Your task to perform on an android device: When is my next meeting? Image 0: 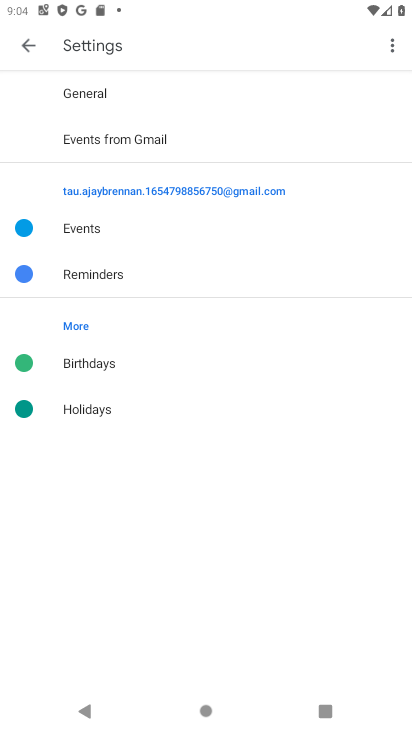
Step 0: press home button
Your task to perform on an android device: When is my next meeting? Image 1: 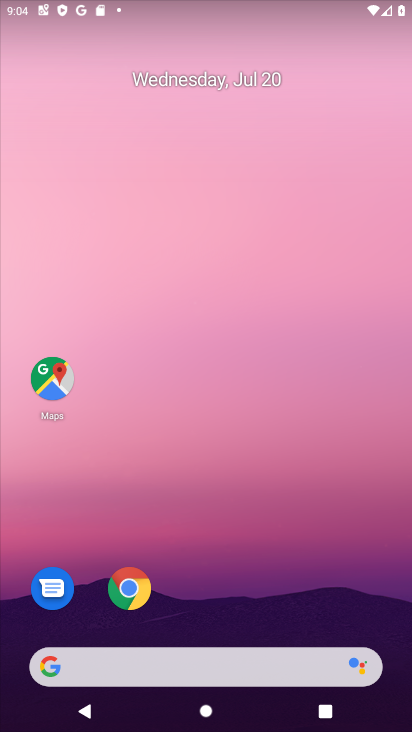
Step 1: drag from (238, 683) to (179, 99)
Your task to perform on an android device: When is my next meeting? Image 2: 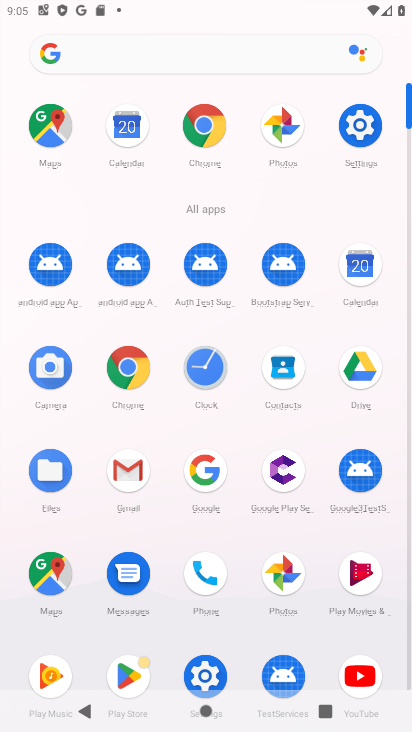
Step 2: click (359, 272)
Your task to perform on an android device: When is my next meeting? Image 3: 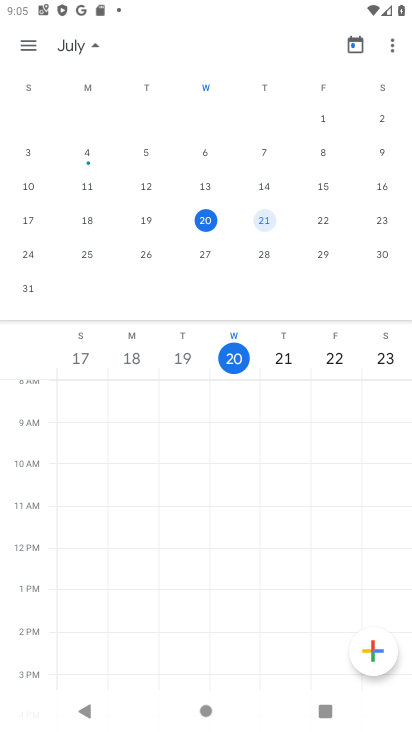
Step 3: click (263, 218)
Your task to perform on an android device: When is my next meeting? Image 4: 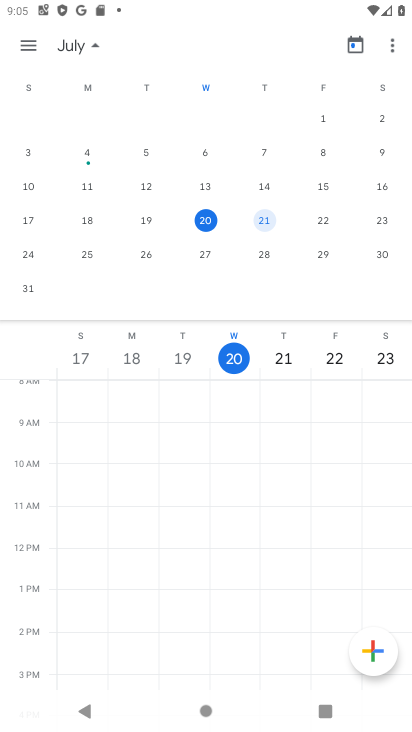
Step 4: click (315, 221)
Your task to perform on an android device: When is my next meeting? Image 5: 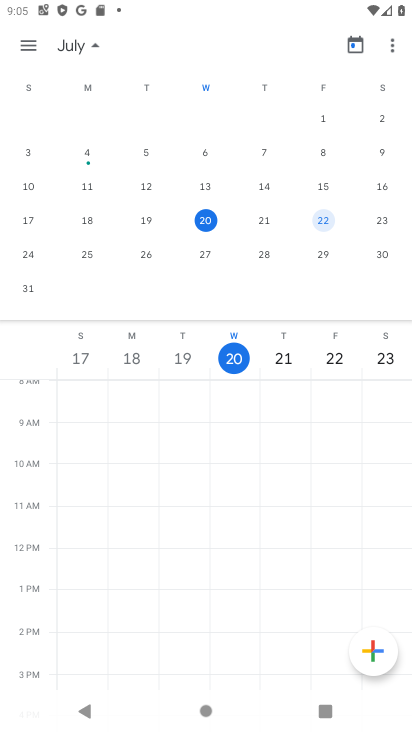
Step 5: task complete